Your task to perform on an android device: See recent photos Image 0: 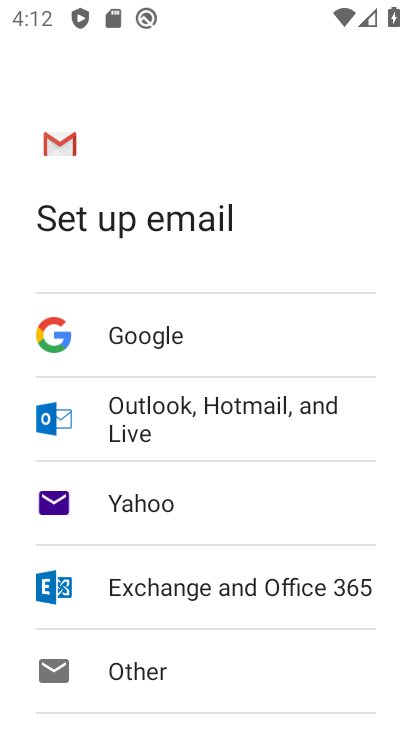
Step 0: press home button
Your task to perform on an android device: See recent photos Image 1: 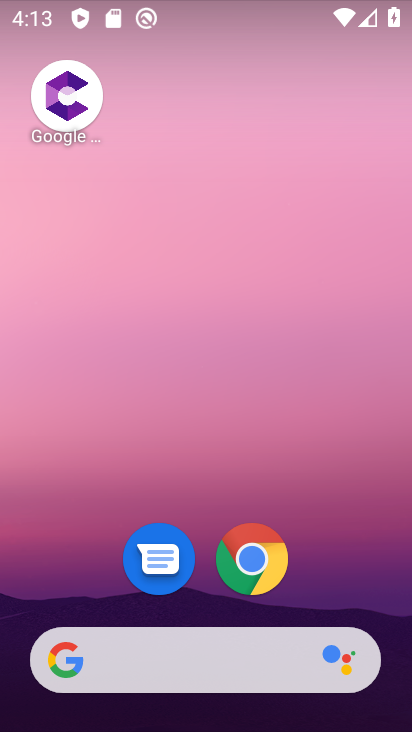
Step 1: drag from (328, 583) to (312, 66)
Your task to perform on an android device: See recent photos Image 2: 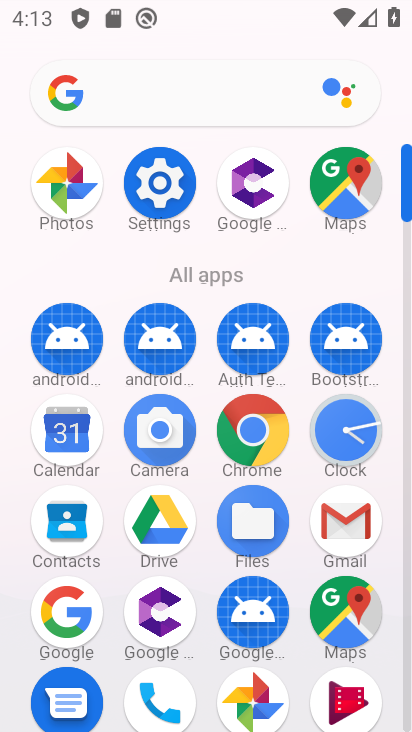
Step 2: click (241, 672)
Your task to perform on an android device: See recent photos Image 3: 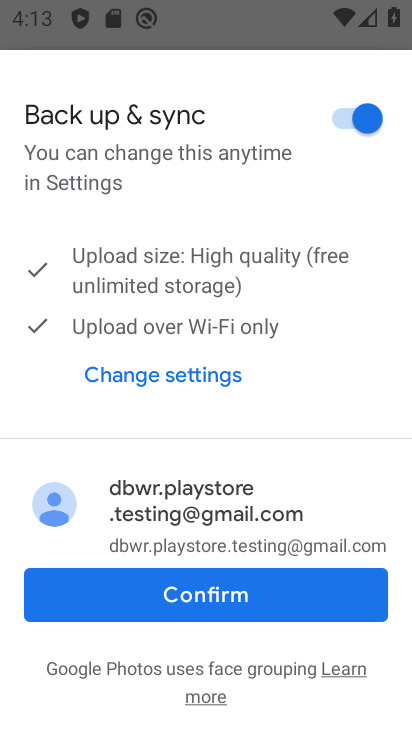
Step 3: click (240, 598)
Your task to perform on an android device: See recent photos Image 4: 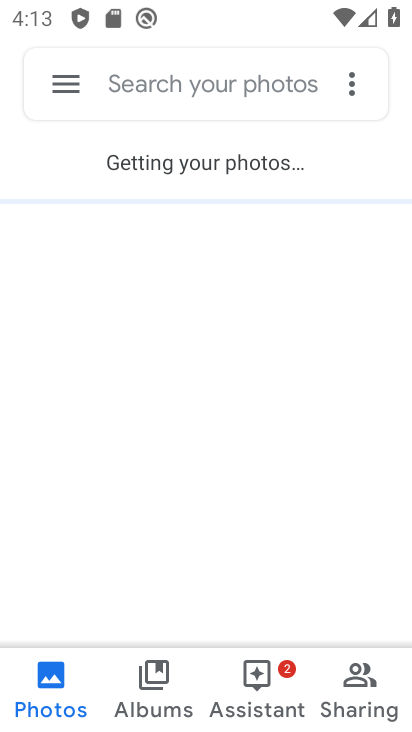
Step 4: click (227, 66)
Your task to perform on an android device: See recent photos Image 5: 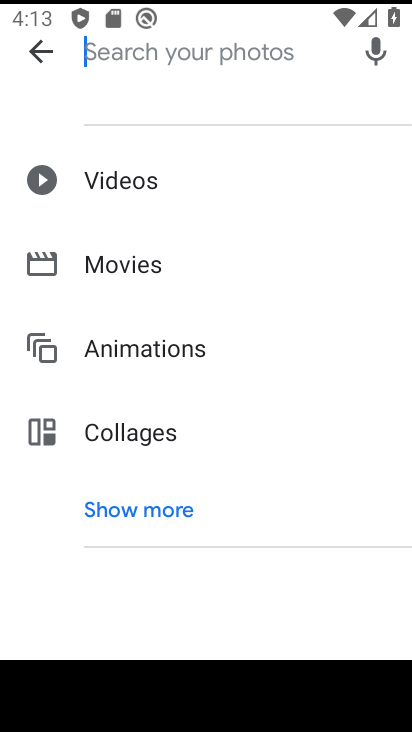
Step 5: click (156, 515)
Your task to perform on an android device: See recent photos Image 6: 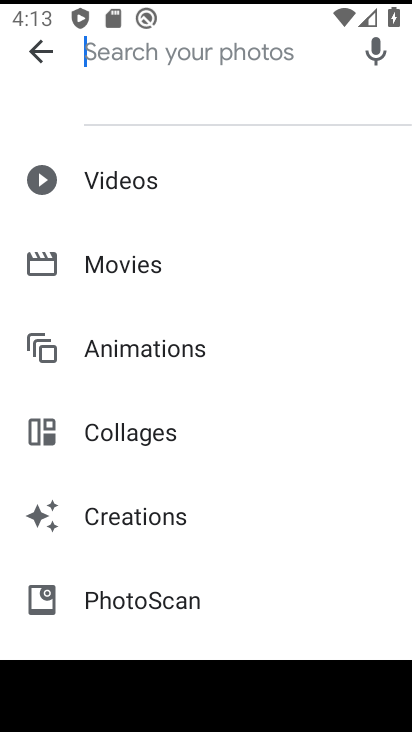
Step 6: click (43, 53)
Your task to perform on an android device: See recent photos Image 7: 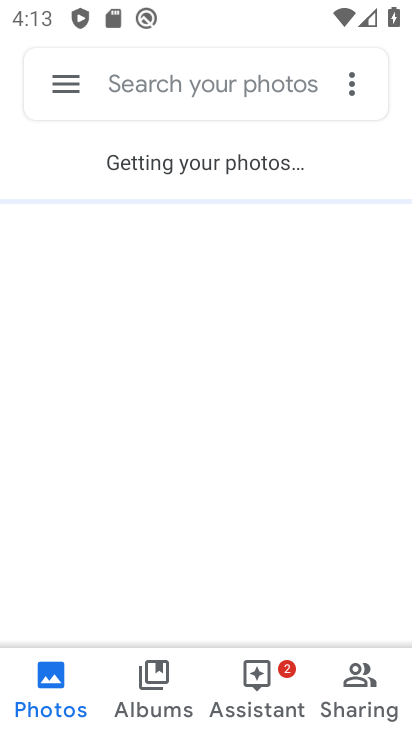
Step 7: click (57, 83)
Your task to perform on an android device: See recent photos Image 8: 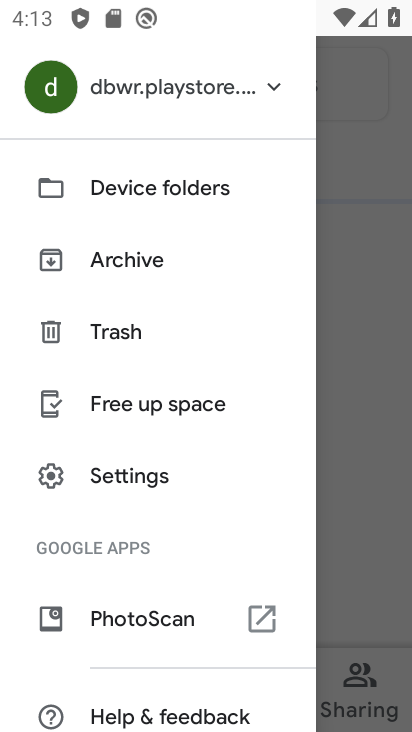
Step 8: click (342, 285)
Your task to perform on an android device: See recent photos Image 9: 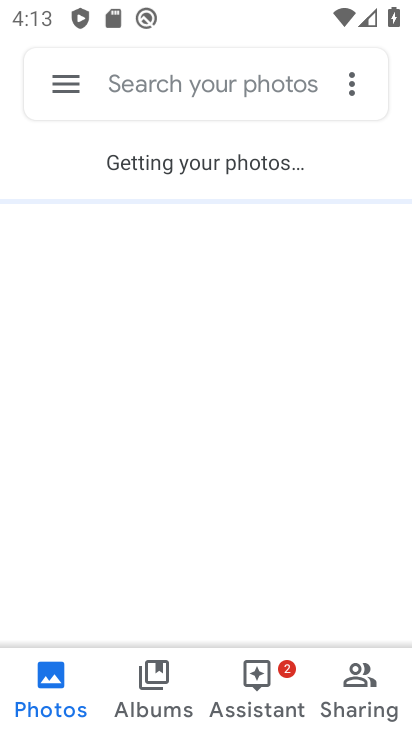
Step 9: click (160, 673)
Your task to perform on an android device: See recent photos Image 10: 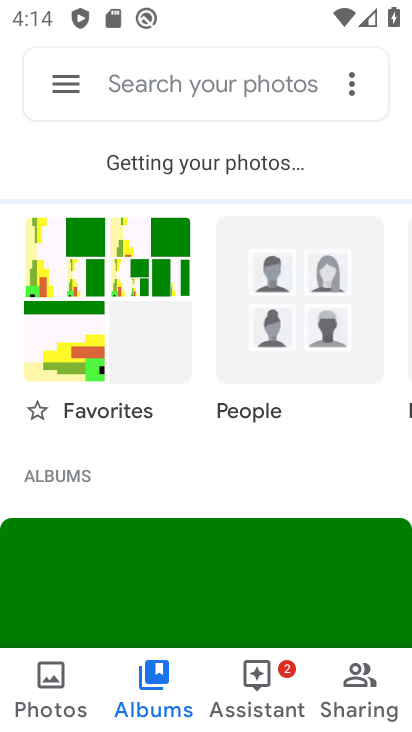
Step 10: task complete